Your task to perform on an android device: toggle wifi Image 0: 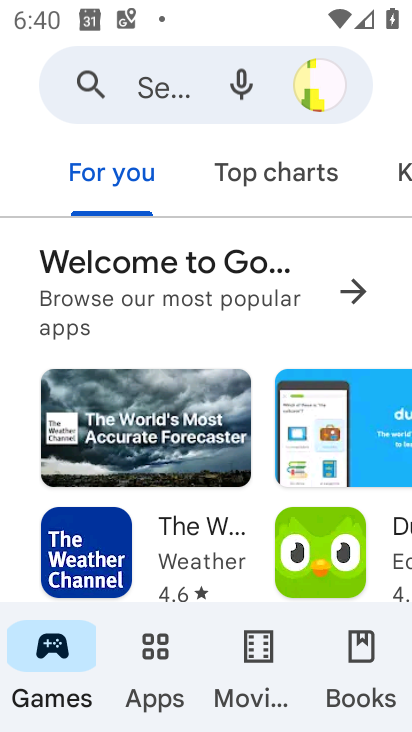
Step 0: press home button
Your task to perform on an android device: toggle wifi Image 1: 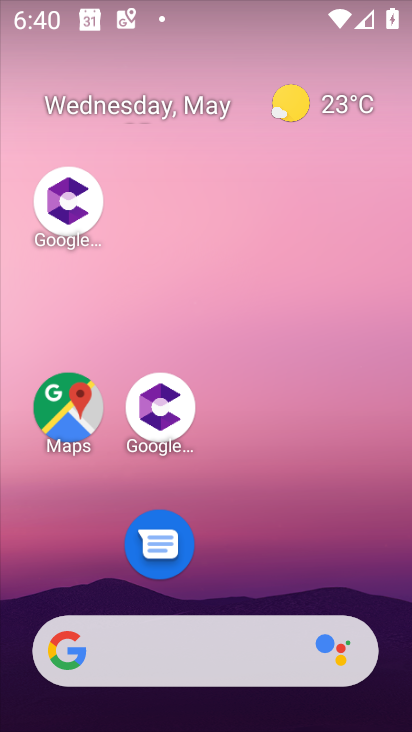
Step 1: drag from (322, 520) to (204, 59)
Your task to perform on an android device: toggle wifi Image 2: 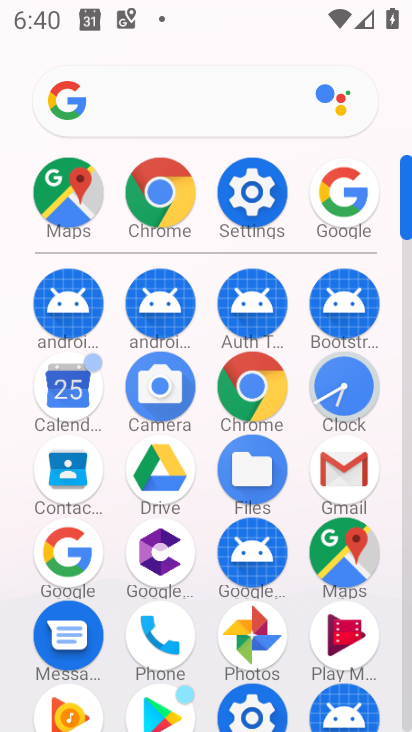
Step 2: click (241, 185)
Your task to perform on an android device: toggle wifi Image 3: 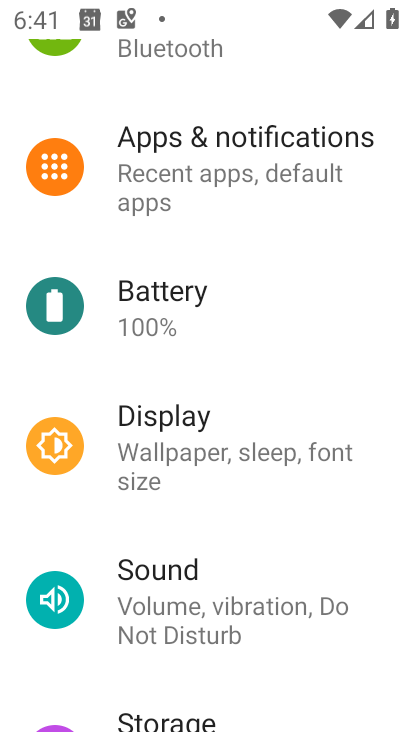
Step 3: drag from (219, 215) to (269, 699)
Your task to perform on an android device: toggle wifi Image 4: 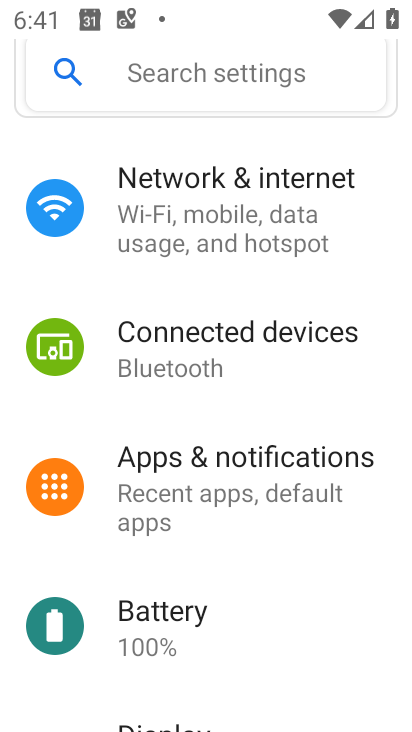
Step 4: click (200, 194)
Your task to perform on an android device: toggle wifi Image 5: 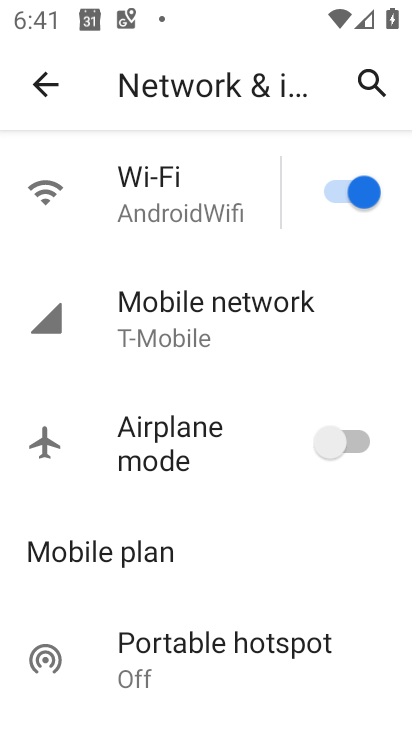
Step 5: click (351, 194)
Your task to perform on an android device: toggle wifi Image 6: 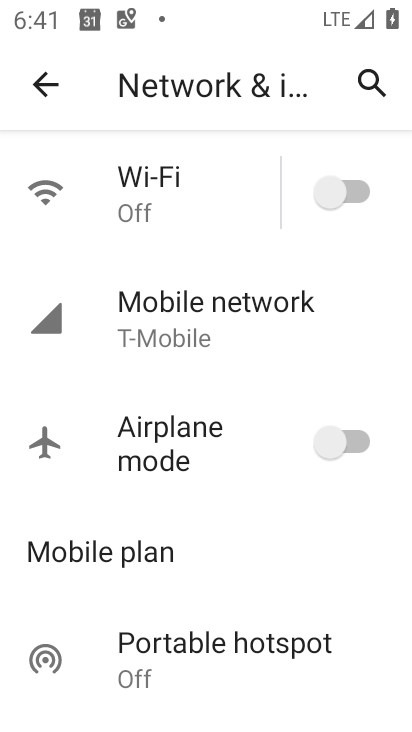
Step 6: task complete